Your task to perform on an android device: Open Google Chrome and click the shortcut for Amazon.com Image 0: 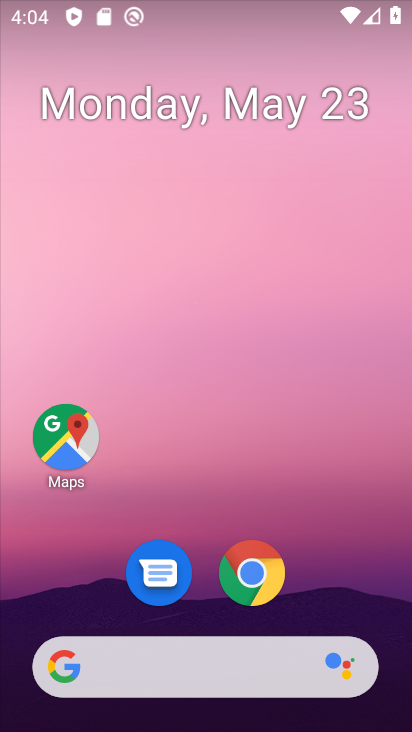
Step 0: click (258, 572)
Your task to perform on an android device: Open Google Chrome and click the shortcut for Amazon.com Image 1: 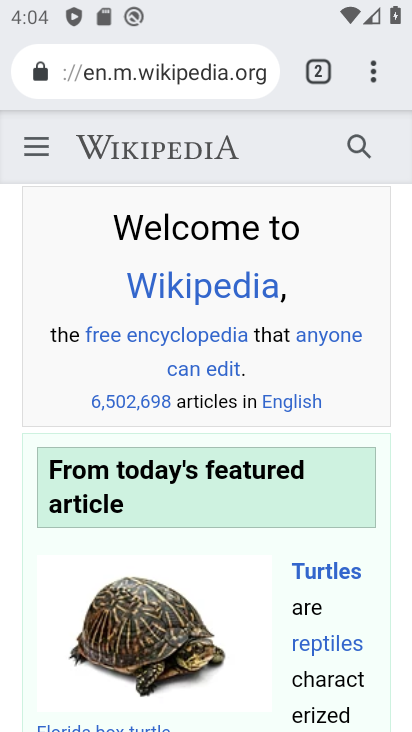
Step 1: click (373, 77)
Your task to perform on an android device: Open Google Chrome and click the shortcut for Amazon.com Image 2: 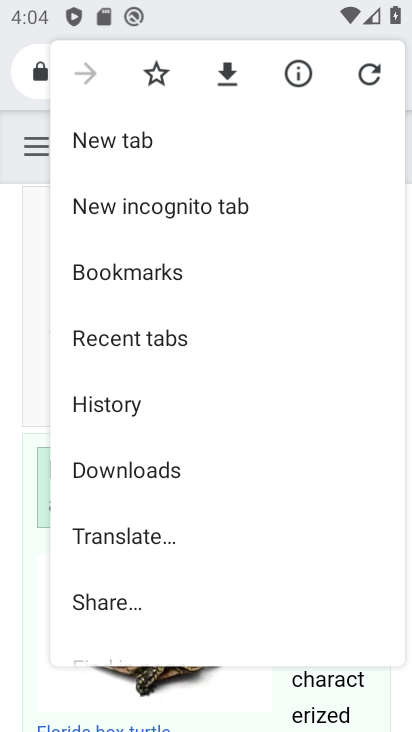
Step 2: click (94, 145)
Your task to perform on an android device: Open Google Chrome and click the shortcut for Amazon.com Image 3: 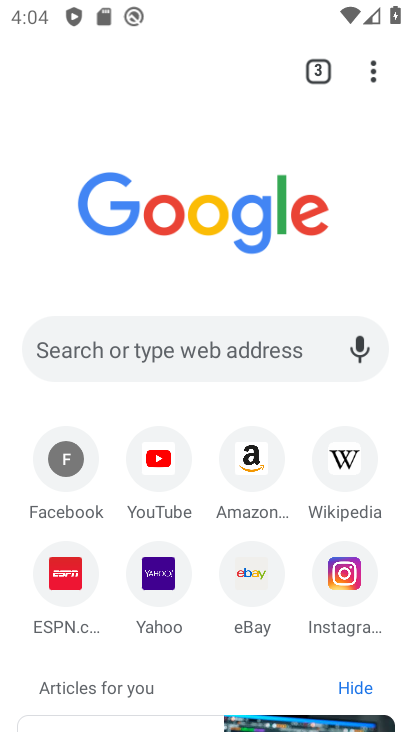
Step 3: click (251, 456)
Your task to perform on an android device: Open Google Chrome and click the shortcut for Amazon.com Image 4: 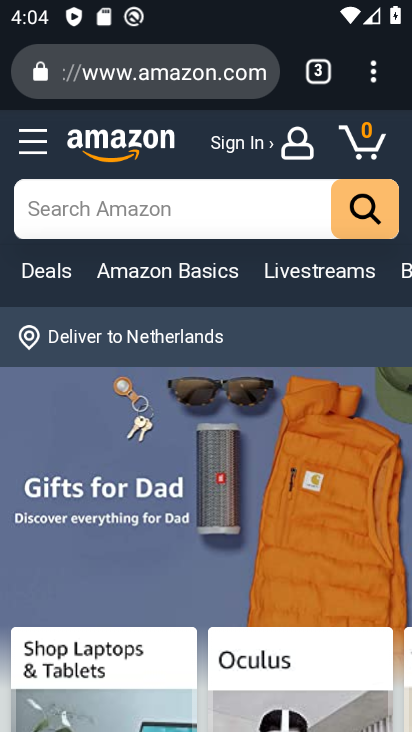
Step 4: task complete